Your task to perform on an android device: Play the last video I watched on Youtube Image 0: 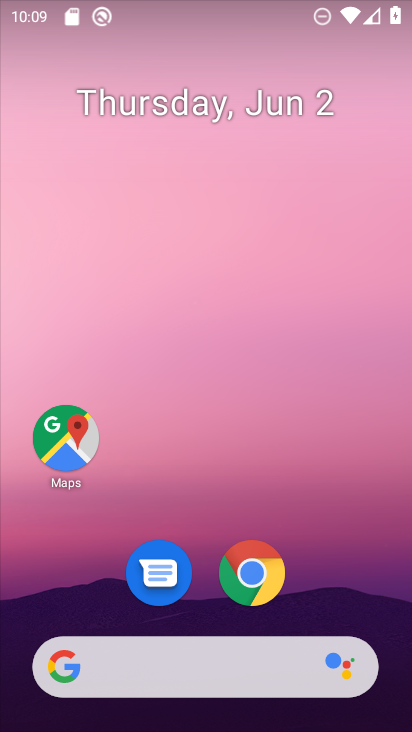
Step 0: drag from (359, 542) to (293, 144)
Your task to perform on an android device: Play the last video I watched on Youtube Image 1: 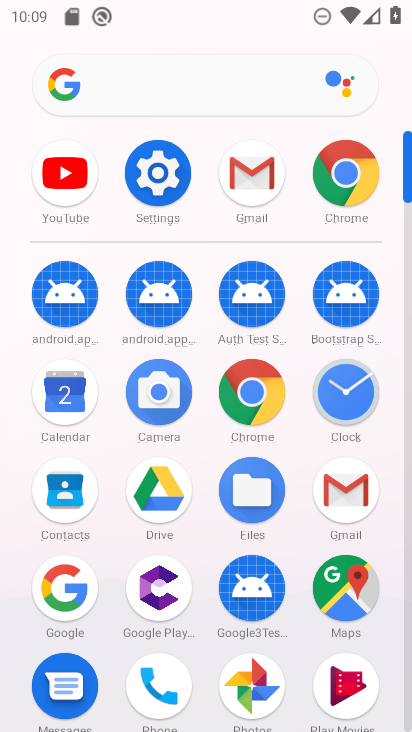
Step 1: click (59, 186)
Your task to perform on an android device: Play the last video I watched on Youtube Image 2: 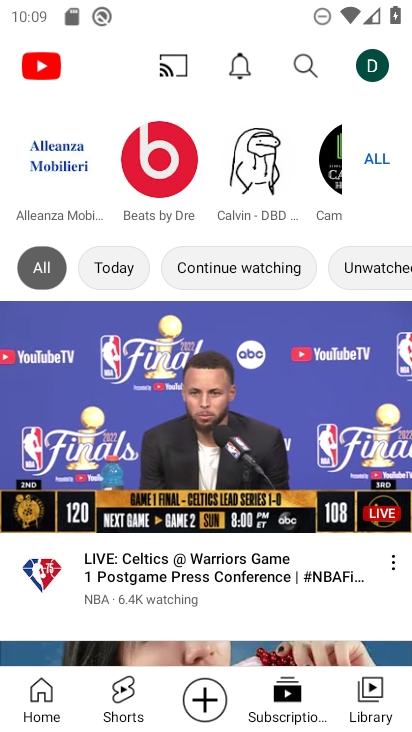
Step 2: click (352, 693)
Your task to perform on an android device: Play the last video I watched on Youtube Image 3: 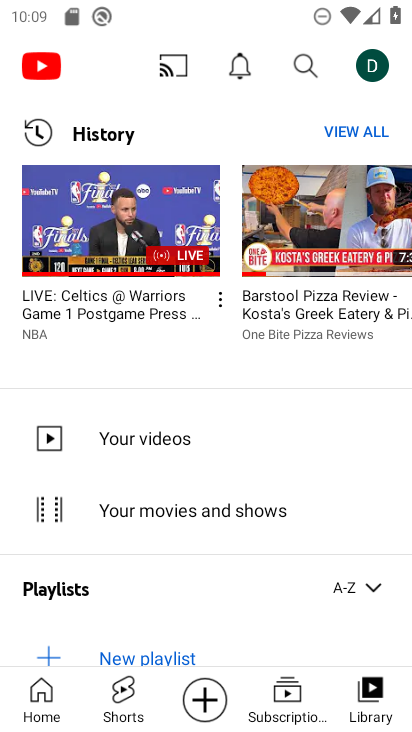
Step 3: click (105, 200)
Your task to perform on an android device: Play the last video I watched on Youtube Image 4: 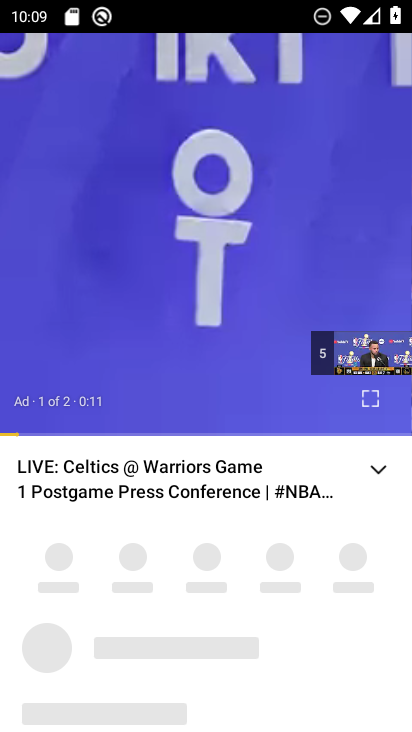
Step 4: task complete